Your task to perform on an android device: Go to location settings Image 0: 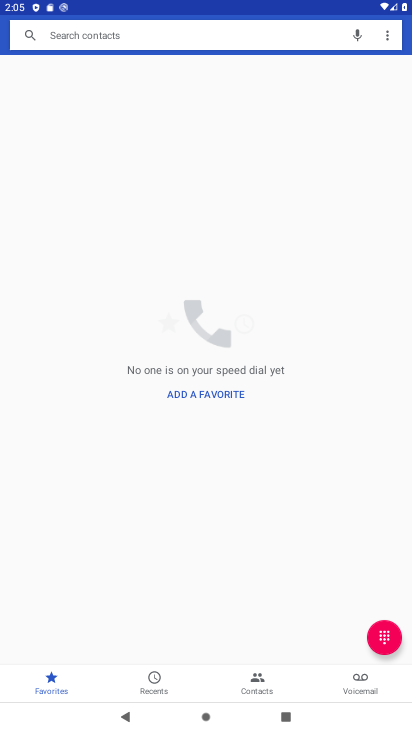
Step 0: press home button
Your task to perform on an android device: Go to location settings Image 1: 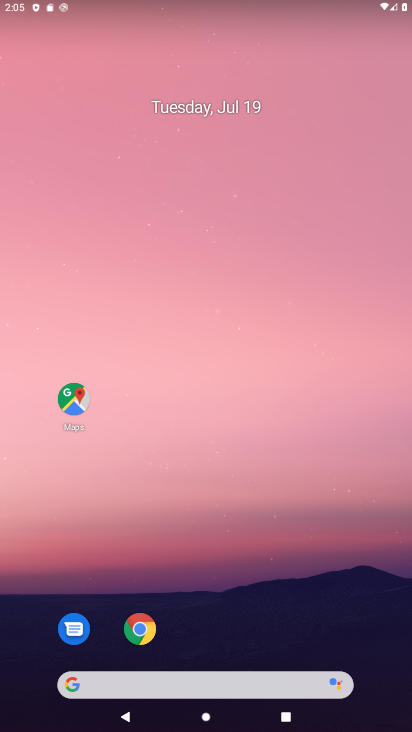
Step 1: drag from (263, 646) to (277, 303)
Your task to perform on an android device: Go to location settings Image 2: 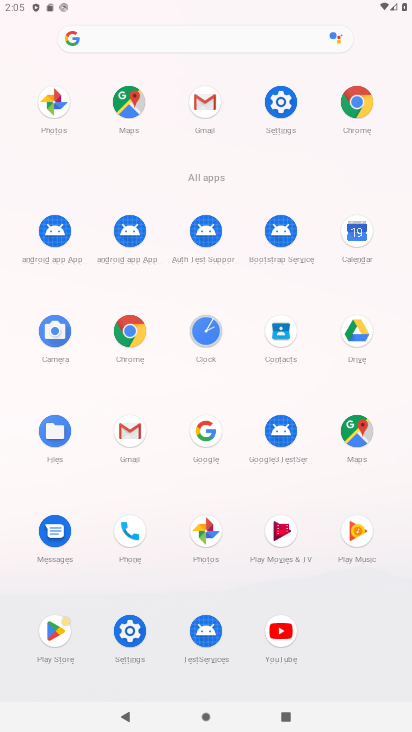
Step 2: click (127, 629)
Your task to perform on an android device: Go to location settings Image 3: 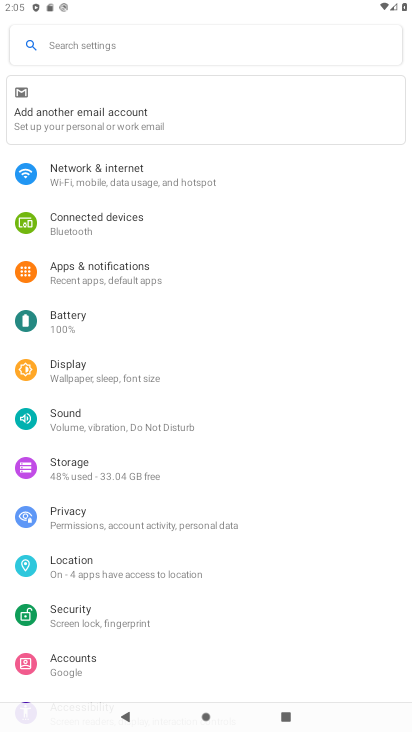
Step 3: click (101, 558)
Your task to perform on an android device: Go to location settings Image 4: 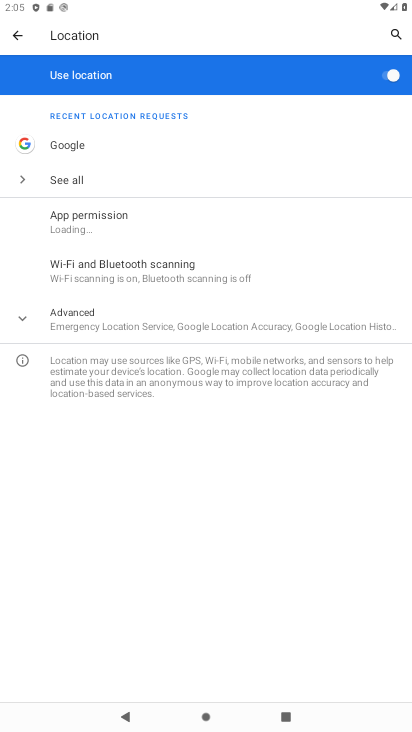
Step 4: task complete